Your task to perform on an android device: star an email in the gmail app Image 0: 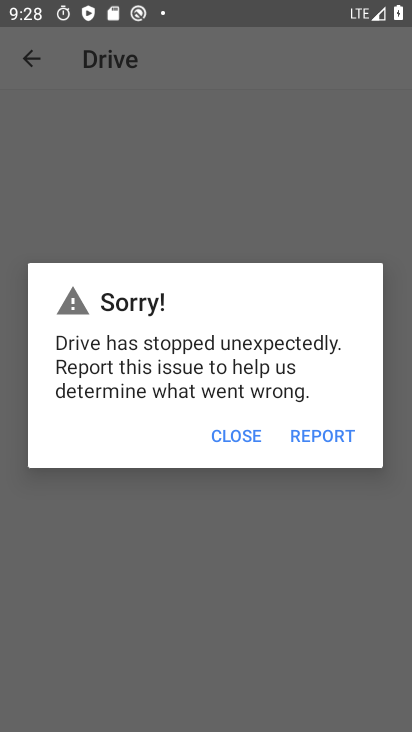
Step 0: press home button
Your task to perform on an android device: star an email in the gmail app Image 1: 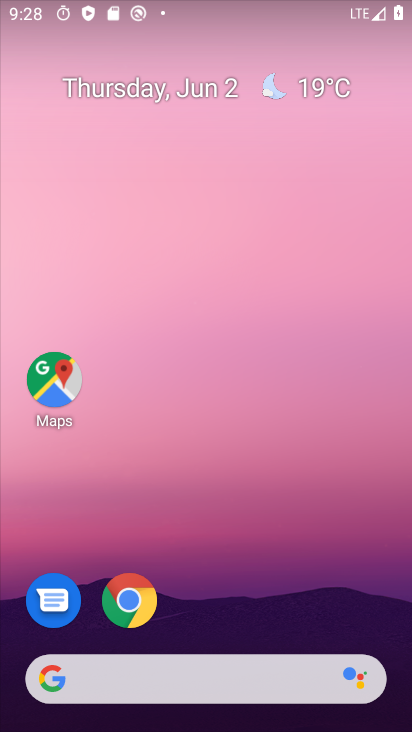
Step 1: press home button
Your task to perform on an android device: star an email in the gmail app Image 2: 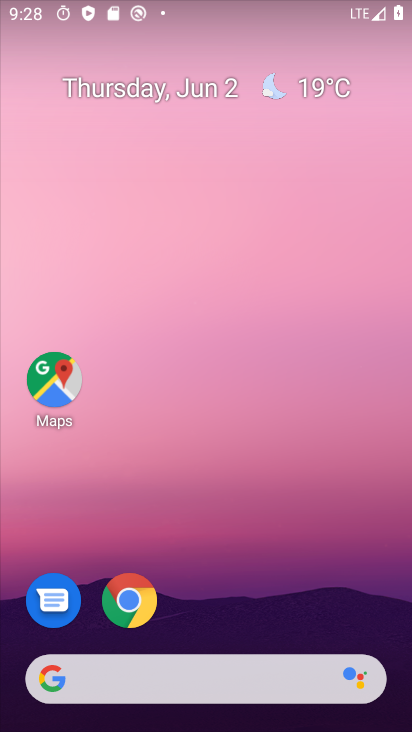
Step 2: drag from (242, 553) to (260, 122)
Your task to perform on an android device: star an email in the gmail app Image 3: 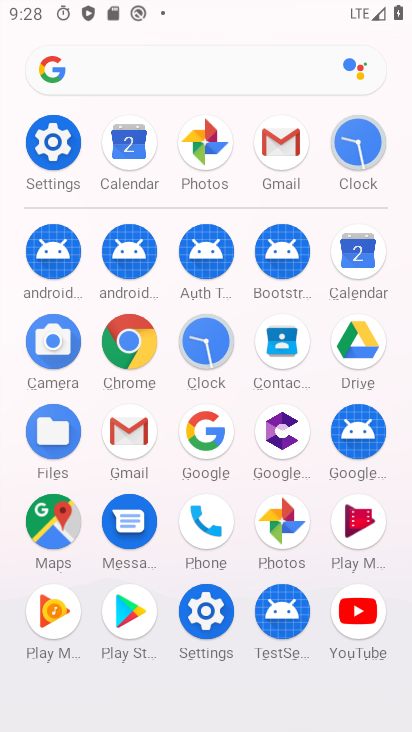
Step 3: click (269, 172)
Your task to perform on an android device: star an email in the gmail app Image 4: 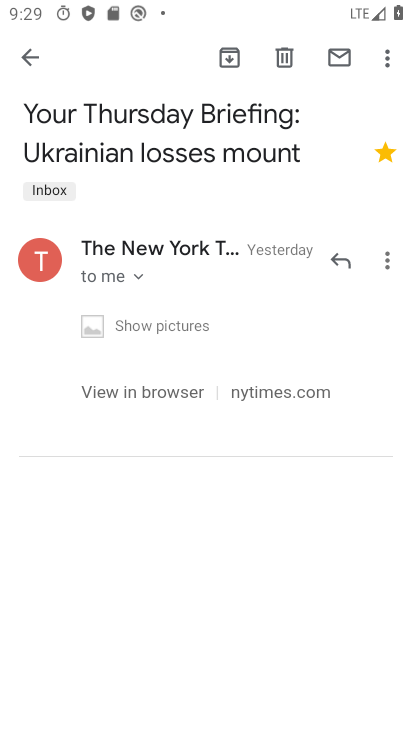
Step 4: task complete